Your task to perform on an android device: stop showing notifications on the lock screen Image 0: 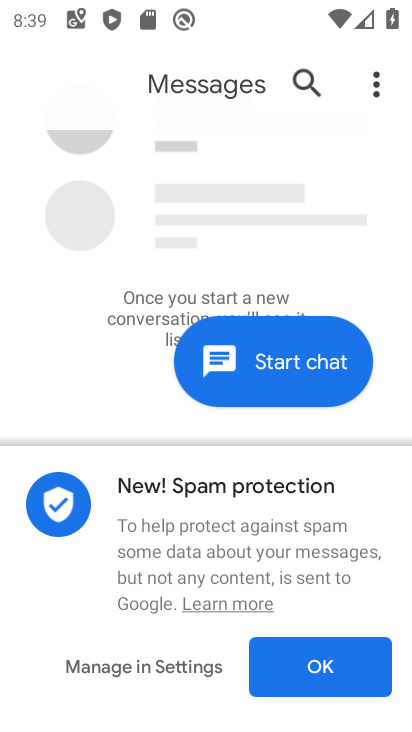
Step 0: press home button
Your task to perform on an android device: stop showing notifications on the lock screen Image 1: 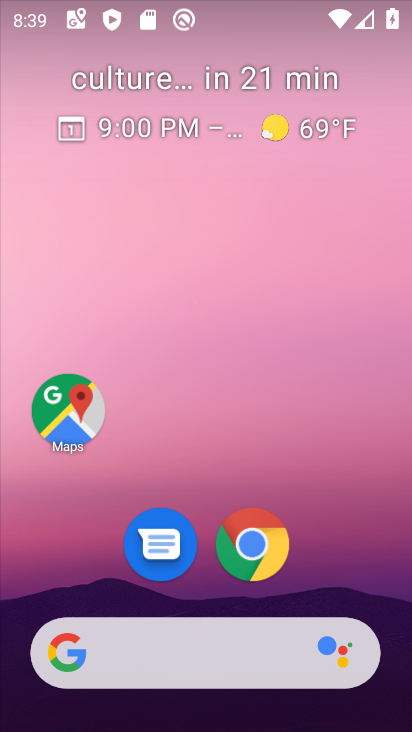
Step 1: drag from (212, 601) to (260, 199)
Your task to perform on an android device: stop showing notifications on the lock screen Image 2: 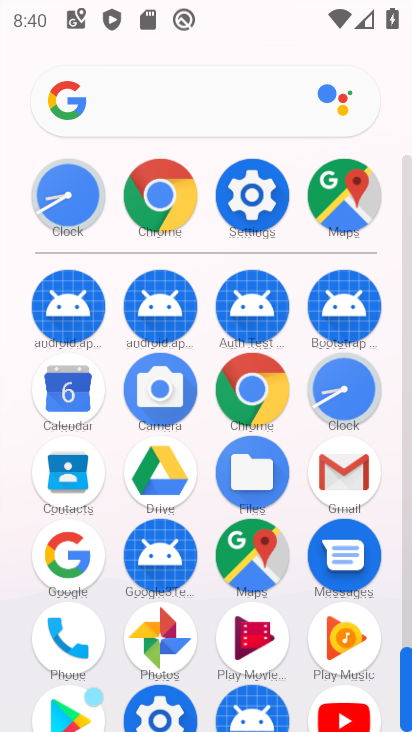
Step 2: click (243, 201)
Your task to perform on an android device: stop showing notifications on the lock screen Image 3: 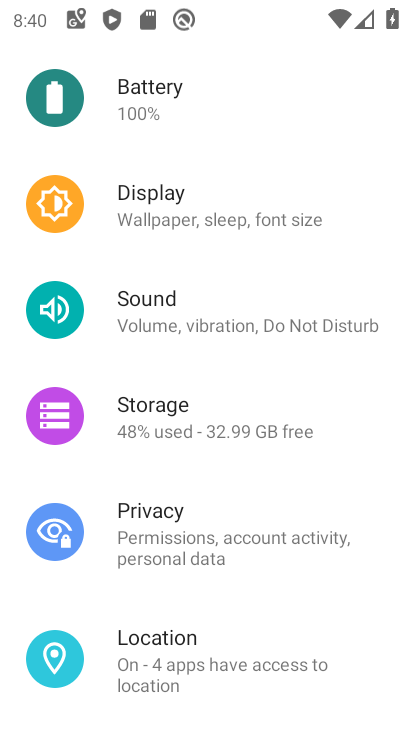
Step 3: drag from (198, 186) to (215, 612)
Your task to perform on an android device: stop showing notifications on the lock screen Image 4: 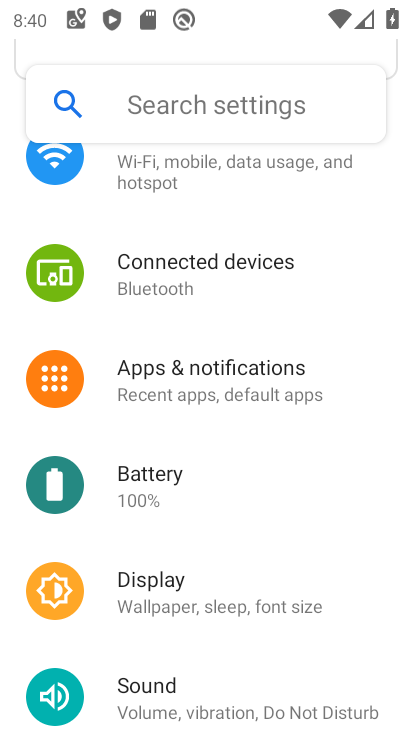
Step 4: click (231, 380)
Your task to perform on an android device: stop showing notifications on the lock screen Image 5: 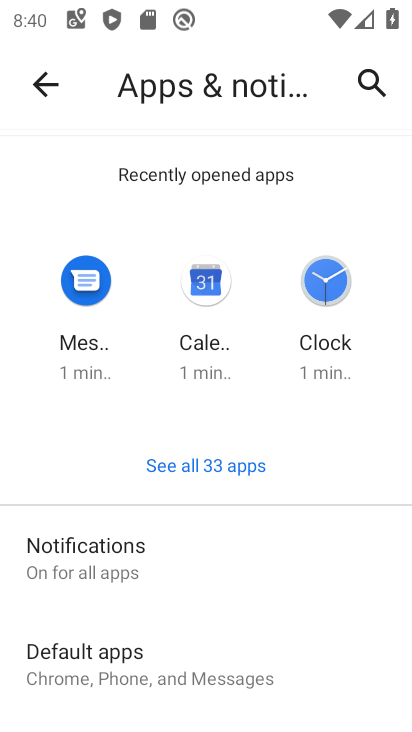
Step 5: click (124, 566)
Your task to perform on an android device: stop showing notifications on the lock screen Image 6: 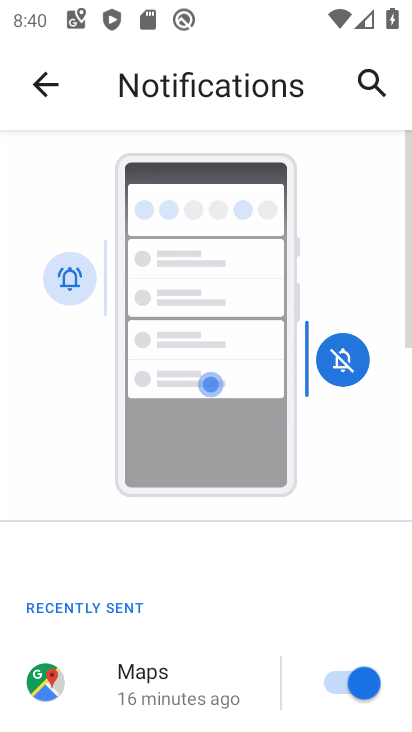
Step 6: drag from (258, 456) to (298, 221)
Your task to perform on an android device: stop showing notifications on the lock screen Image 7: 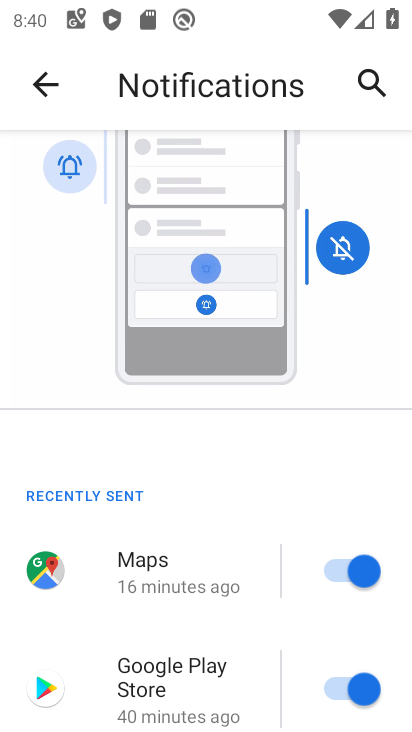
Step 7: drag from (207, 663) to (218, 292)
Your task to perform on an android device: stop showing notifications on the lock screen Image 8: 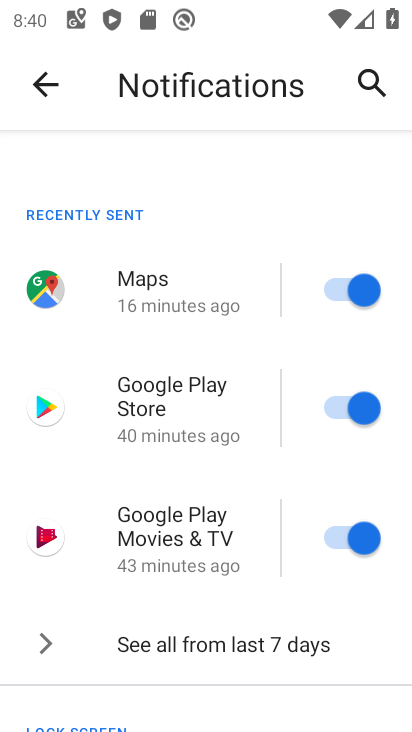
Step 8: drag from (198, 663) to (282, 348)
Your task to perform on an android device: stop showing notifications on the lock screen Image 9: 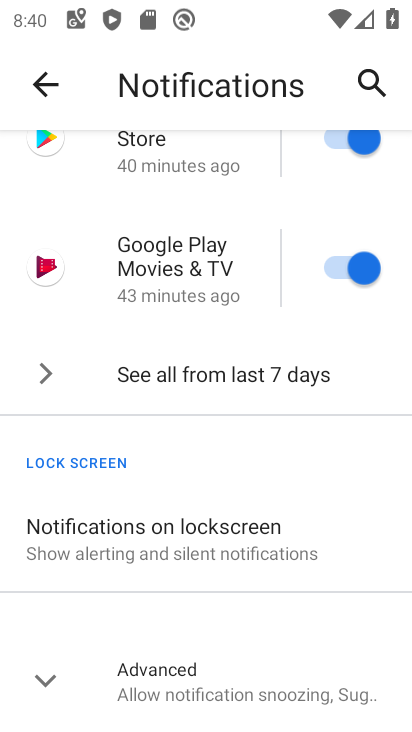
Step 9: click (236, 546)
Your task to perform on an android device: stop showing notifications on the lock screen Image 10: 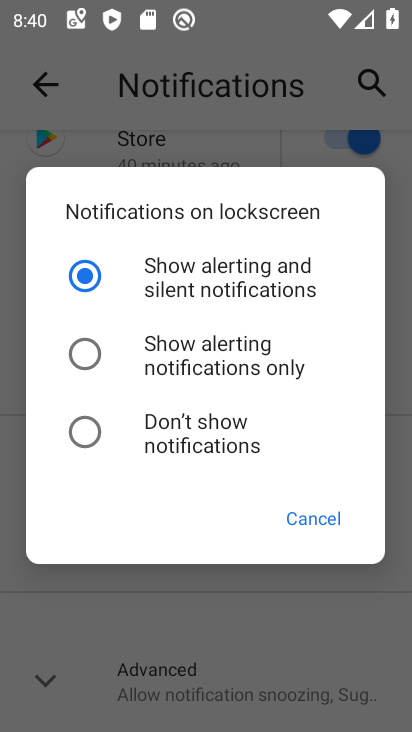
Step 10: task complete